Your task to perform on an android device: Open Google Chrome Image 0: 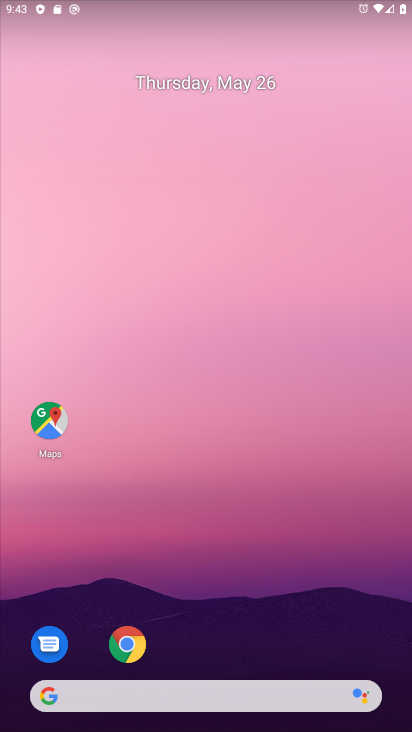
Step 0: click (127, 649)
Your task to perform on an android device: Open Google Chrome Image 1: 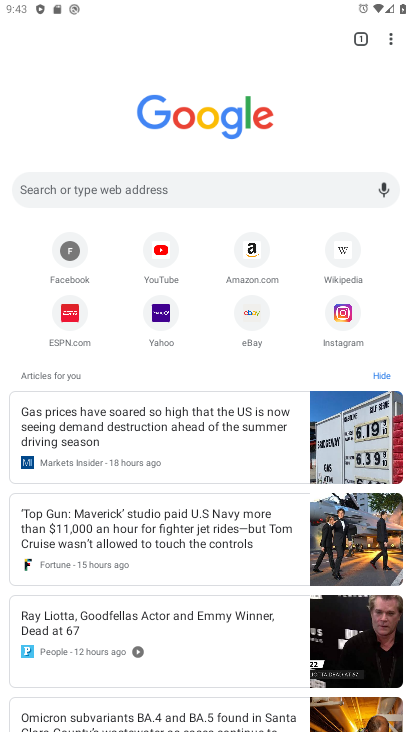
Step 1: task complete